Your task to perform on an android device: Go to Wikipedia Image 0: 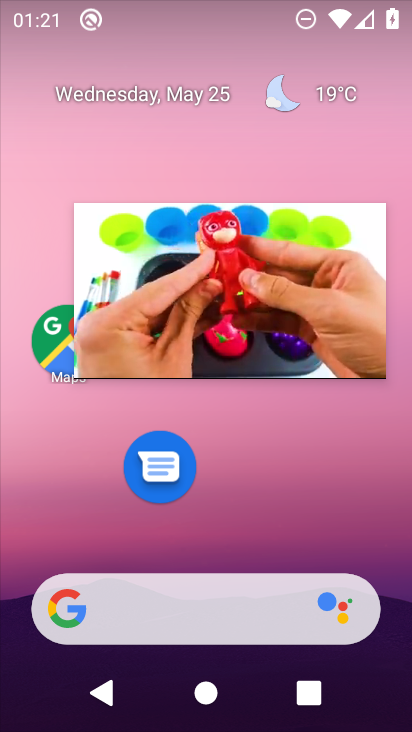
Step 0: click (159, 288)
Your task to perform on an android device: Go to Wikipedia Image 1: 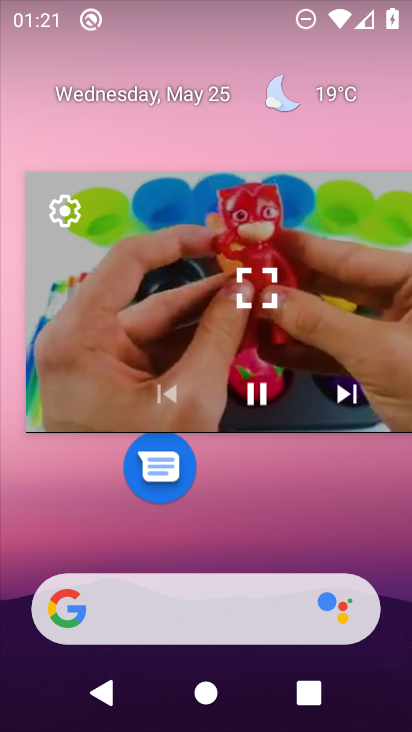
Step 1: drag from (357, 240) to (75, 384)
Your task to perform on an android device: Go to Wikipedia Image 2: 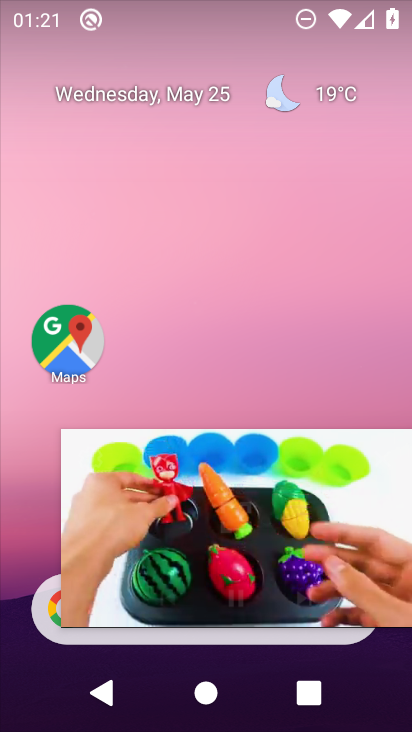
Step 2: drag from (315, 463) to (165, 721)
Your task to perform on an android device: Go to Wikipedia Image 3: 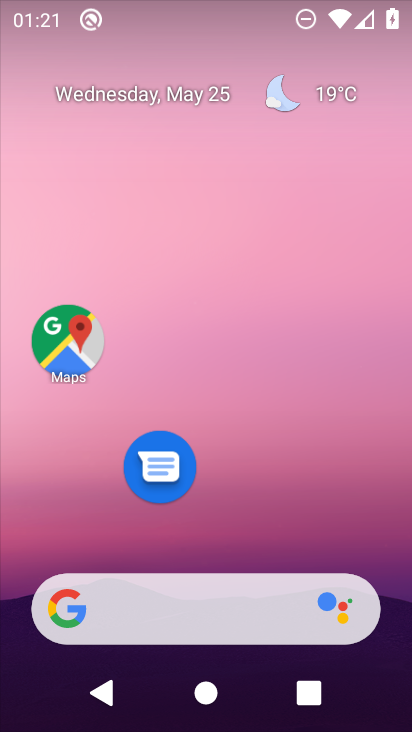
Step 3: drag from (215, 496) to (248, 175)
Your task to perform on an android device: Go to Wikipedia Image 4: 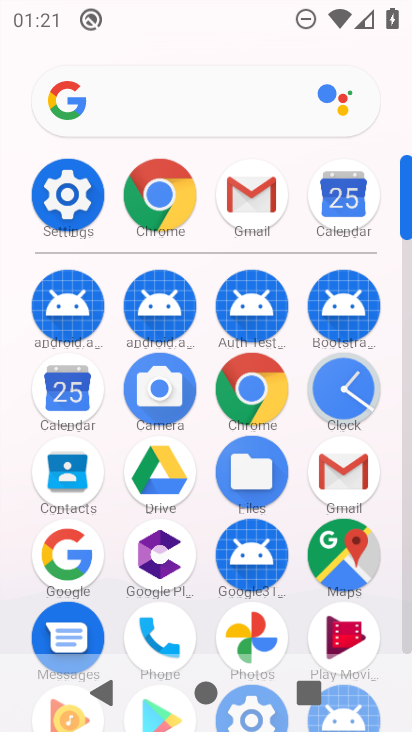
Step 4: click (166, 108)
Your task to perform on an android device: Go to Wikipedia Image 5: 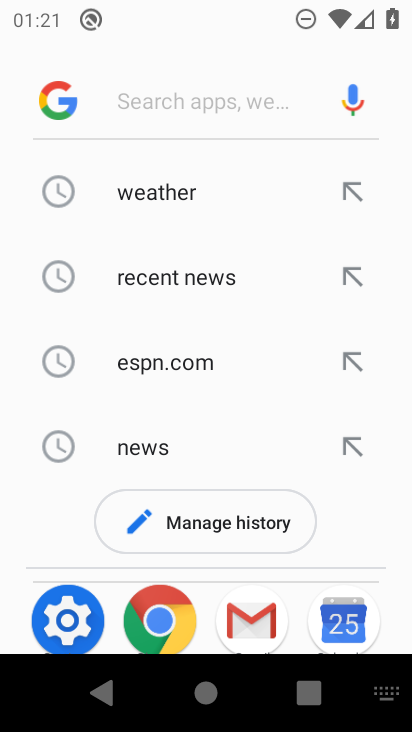
Step 5: type ""
Your task to perform on an android device: Go to Wikipedia Image 6: 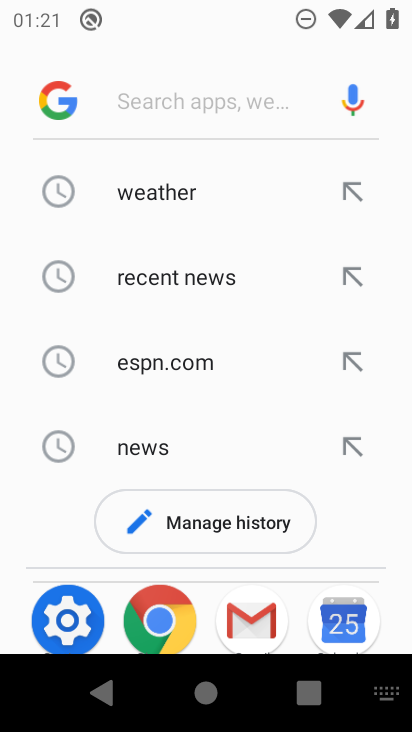
Step 6: type "wikipedia.com"
Your task to perform on an android device: Go to Wikipedia Image 7: 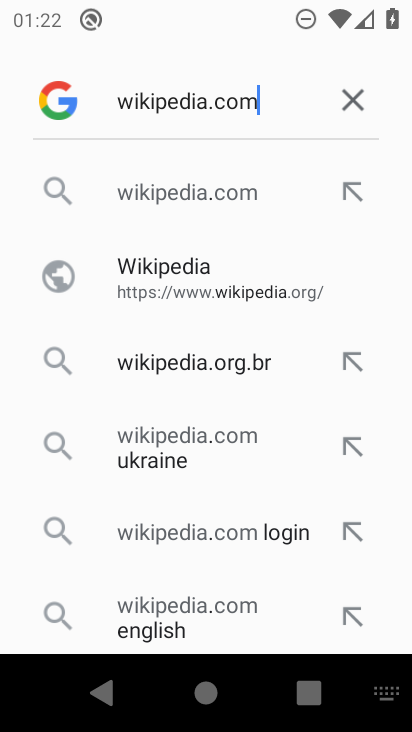
Step 7: click (218, 213)
Your task to perform on an android device: Go to Wikipedia Image 8: 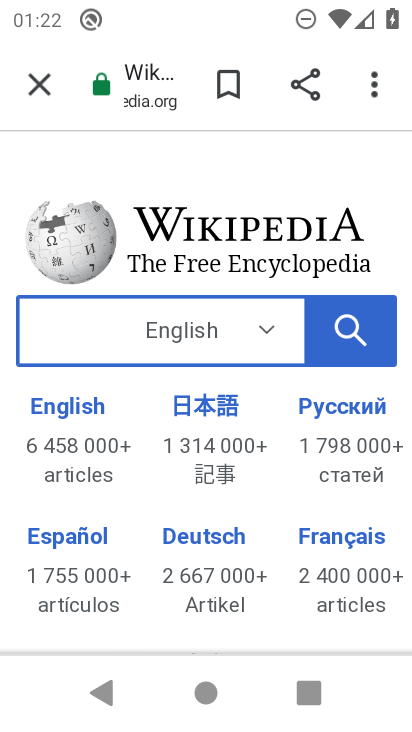
Step 8: task complete